Your task to perform on an android device: move an email to a new category in the gmail app Image 0: 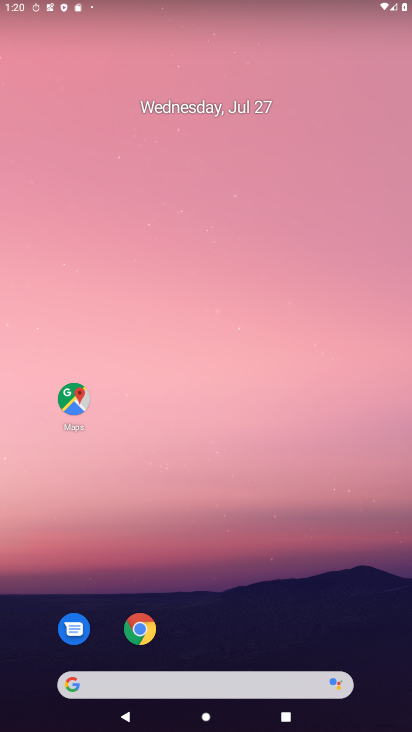
Step 0: drag from (359, 614) to (183, 89)
Your task to perform on an android device: move an email to a new category in the gmail app Image 1: 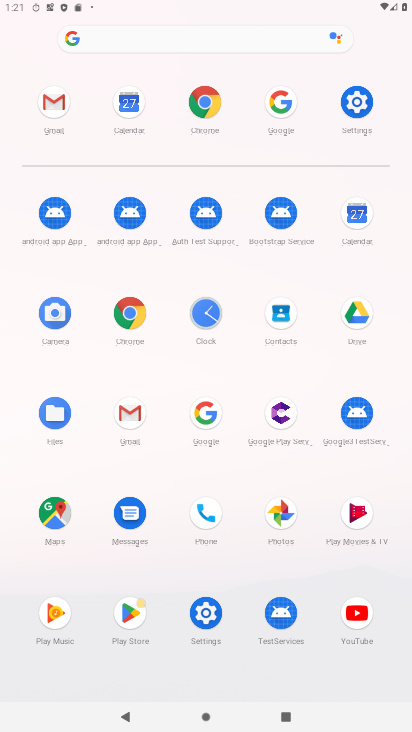
Step 1: click (130, 398)
Your task to perform on an android device: move an email to a new category in the gmail app Image 2: 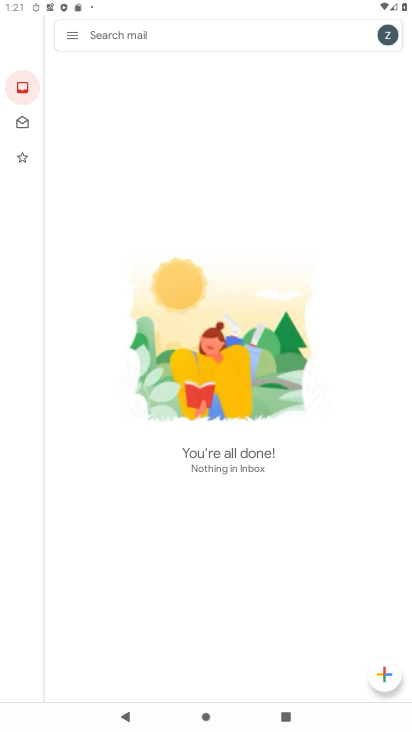
Step 2: task complete